Your task to perform on an android device: Open the calendar and show me this week's events? Image 0: 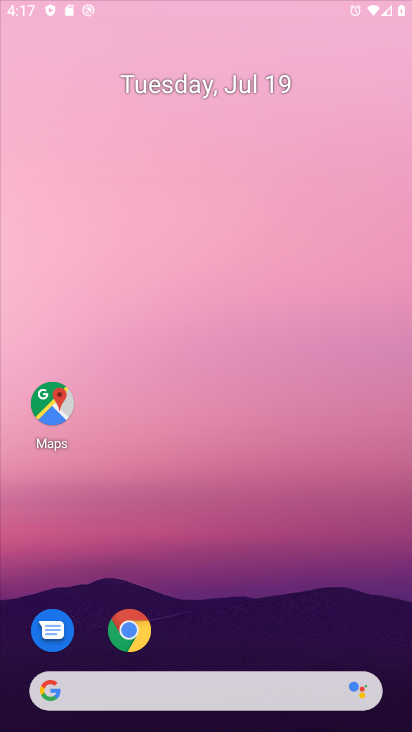
Step 0: press back button
Your task to perform on an android device: Open the calendar and show me this week's events? Image 1: 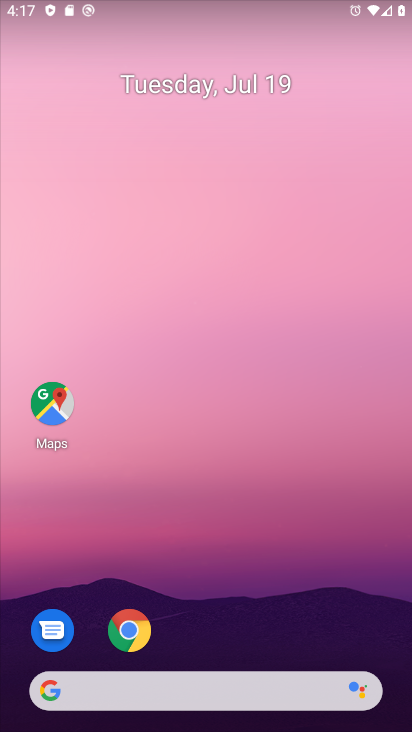
Step 1: drag from (200, 265) to (232, 115)
Your task to perform on an android device: Open the calendar and show me this week's events? Image 2: 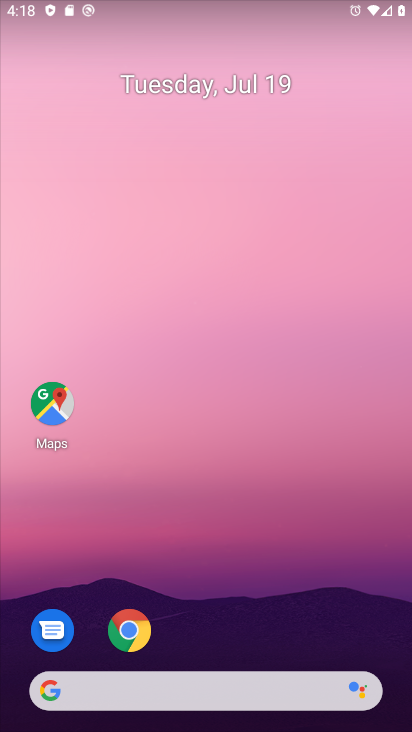
Step 2: drag from (207, 601) to (182, 167)
Your task to perform on an android device: Open the calendar and show me this week's events? Image 3: 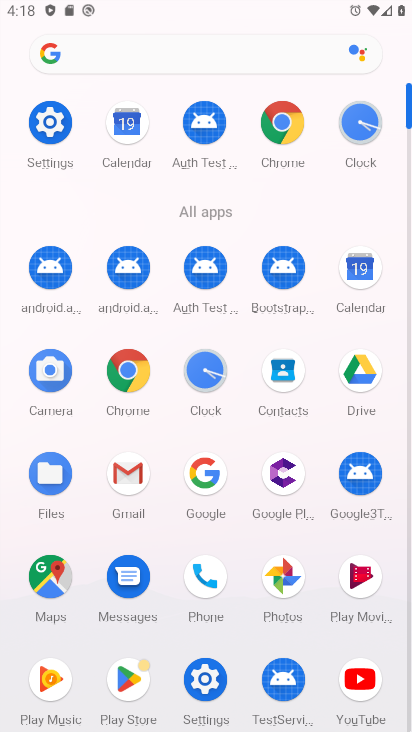
Step 3: click (359, 303)
Your task to perform on an android device: Open the calendar and show me this week's events? Image 4: 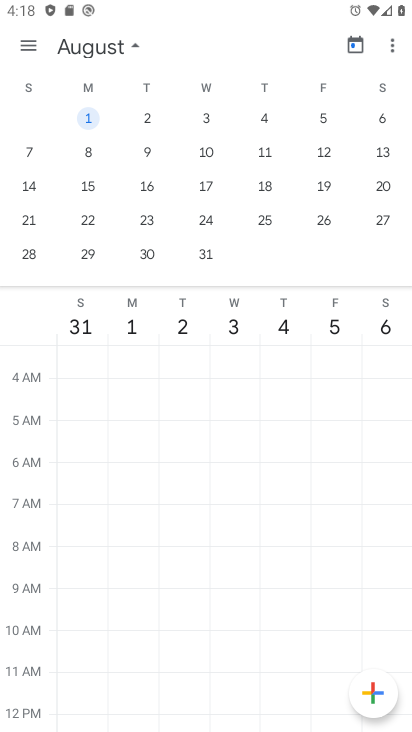
Step 4: click (94, 47)
Your task to perform on an android device: Open the calendar and show me this week's events? Image 5: 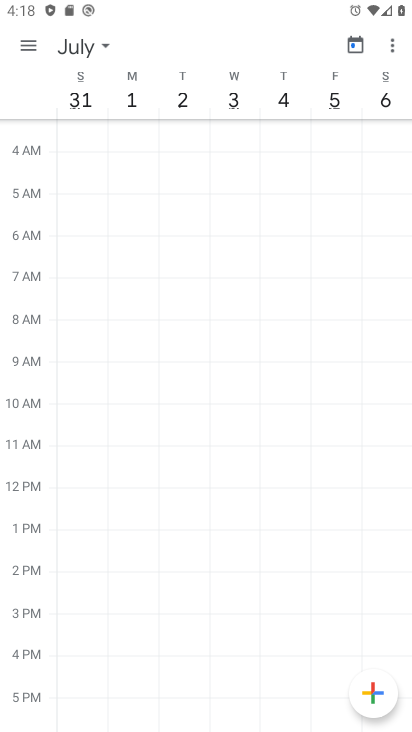
Step 5: click (94, 47)
Your task to perform on an android device: Open the calendar and show me this week's events? Image 6: 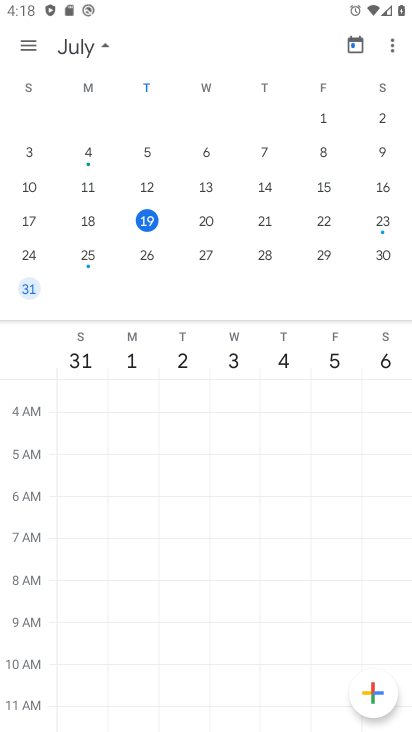
Step 6: click (33, 225)
Your task to perform on an android device: Open the calendar and show me this week's events? Image 7: 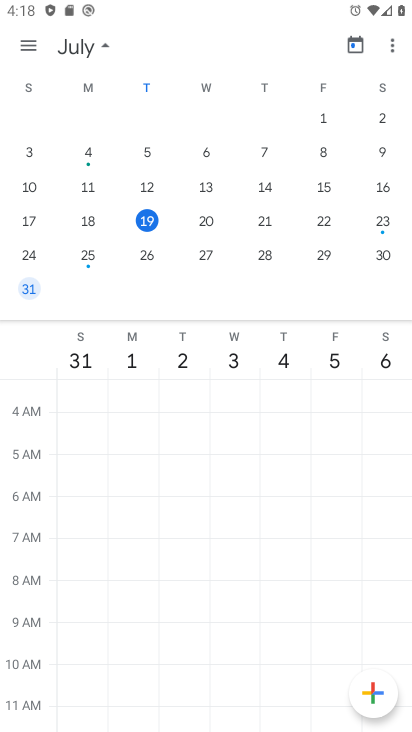
Step 7: click (33, 225)
Your task to perform on an android device: Open the calendar and show me this week's events? Image 8: 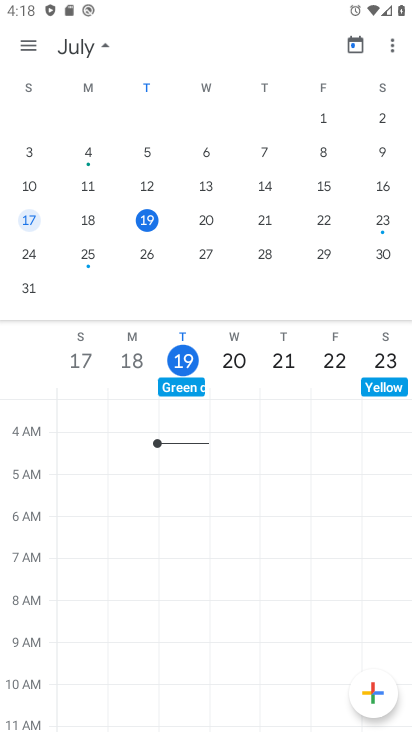
Step 8: task complete